Your task to perform on an android device: turn off notifications in google photos Image 0: 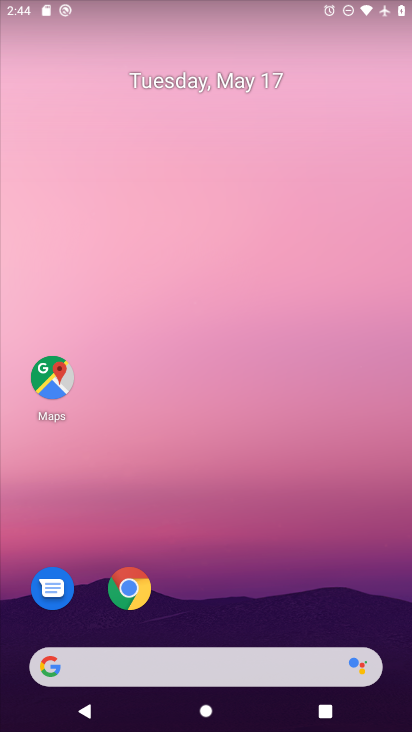
Step 0: drag from (218, 578) to (194, 169)
Your task to perform on an android device: turn off notifications in google photos Image 1: 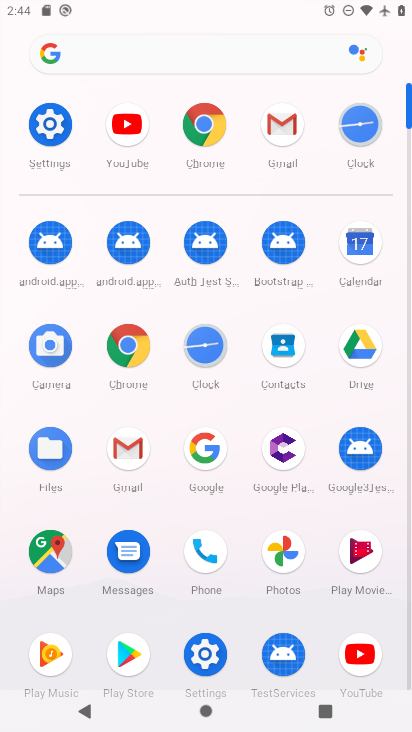
Step 1: click (299, 549)
Your task to perform on an android device: turn off notifications in google photos Image 2: 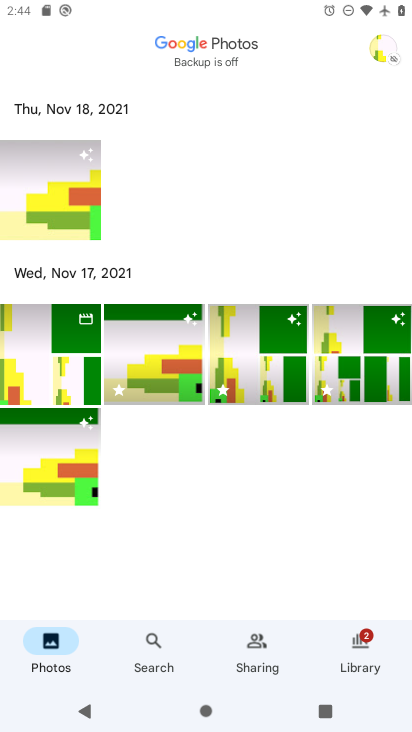
Step 2: click (382, 55)
Your task to perform on an android device: turn off notifications in google photos Image 3: 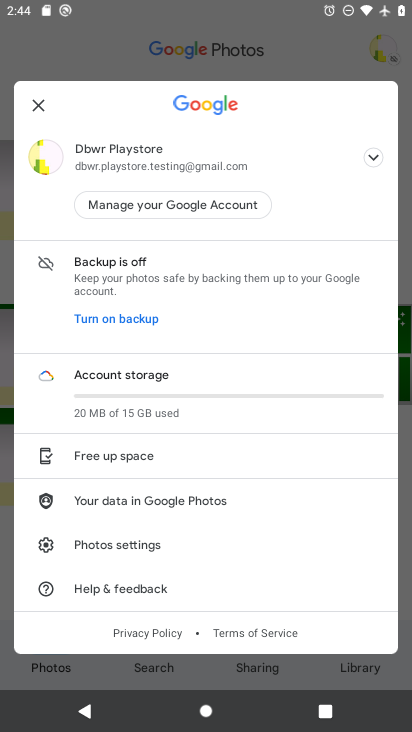
Step 3: click (109, 548)
Your task to perform on an android device: turn off notifications in google photos Image 4: 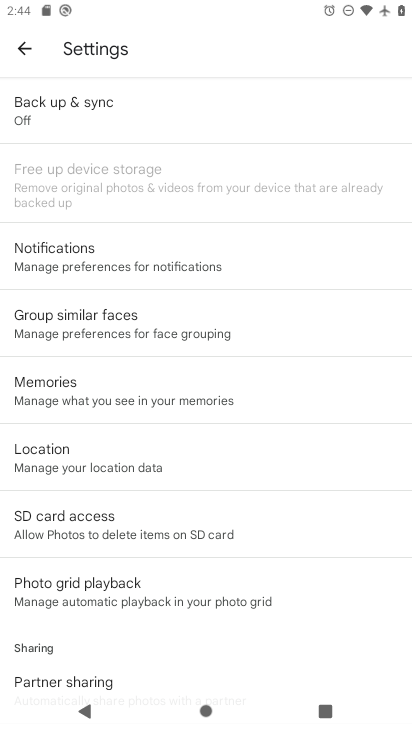
Step 4: click (80, 259)
Your task to perform on an android device: turn off notifications in google photos Image 5: 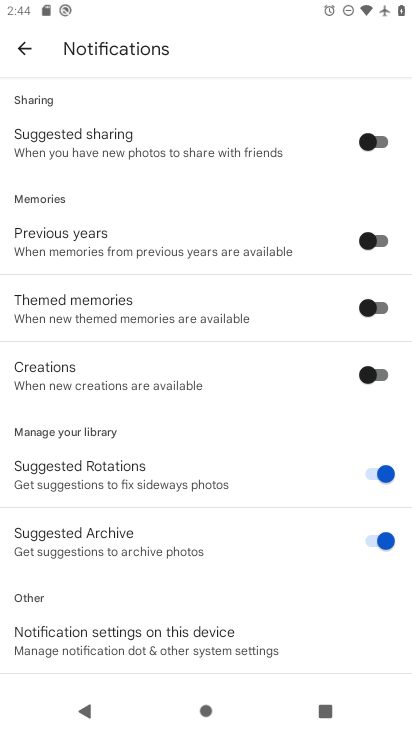
Step 5: click (116, 629)
Your task to perform on an android device: turn off notifications in google photos Image 6: 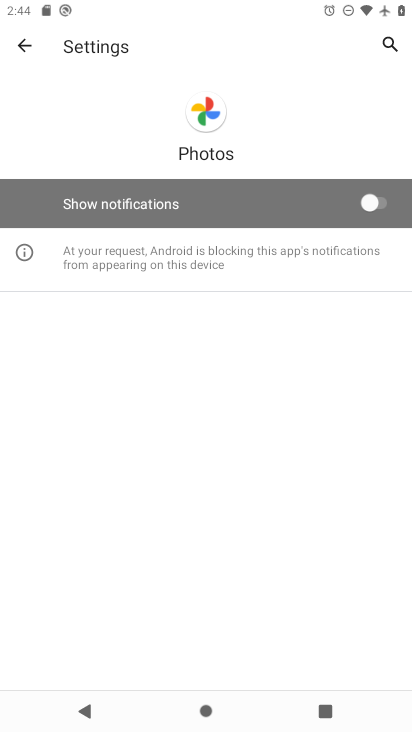
Step 6: task complete